Your task to perform on an android device: Open my contact list Image 0: 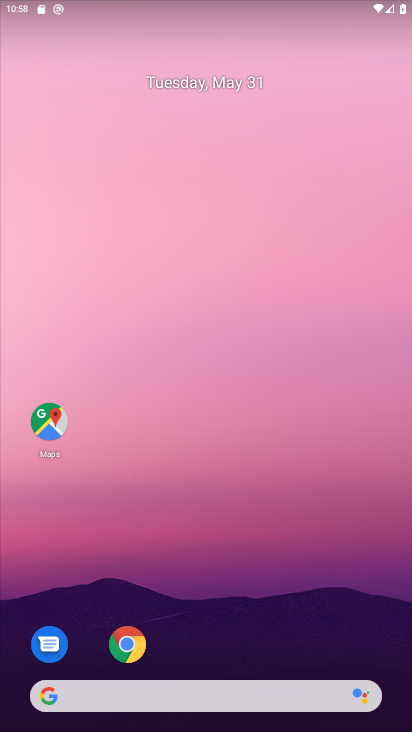
Step 0: drag from (243, 590) to (309, 283)
Your task to perform on an android device: Open my contact list Image 1: 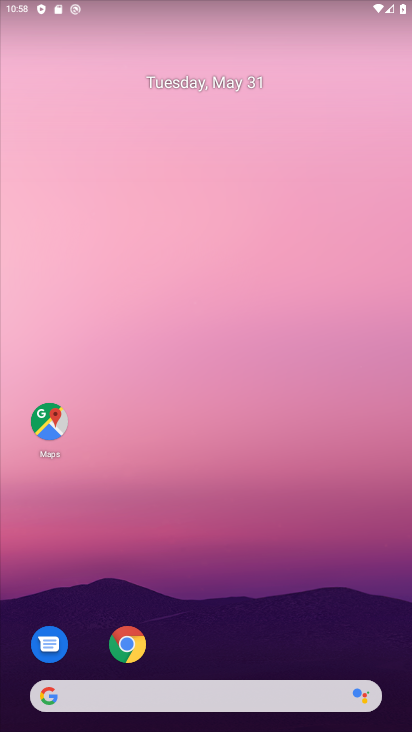
Step 1: drag from (245, 667) to (293, 247)
Your task to perform on an android device: Open my contact list Image 2: 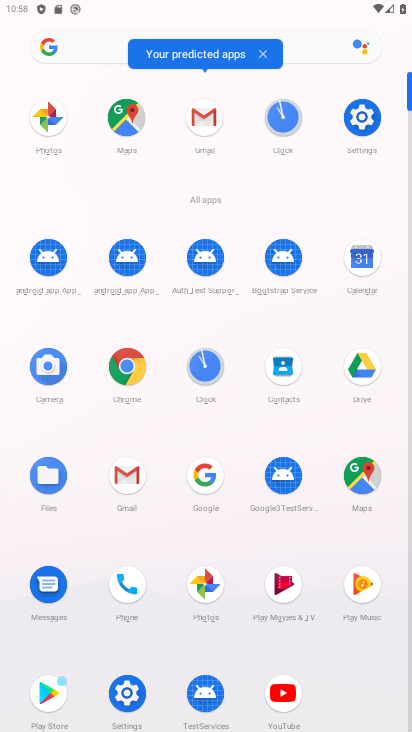
Step 2: drag from (203, 456) to (282, 123)
Your task to perform on an android device: Open my contact list Image 3: 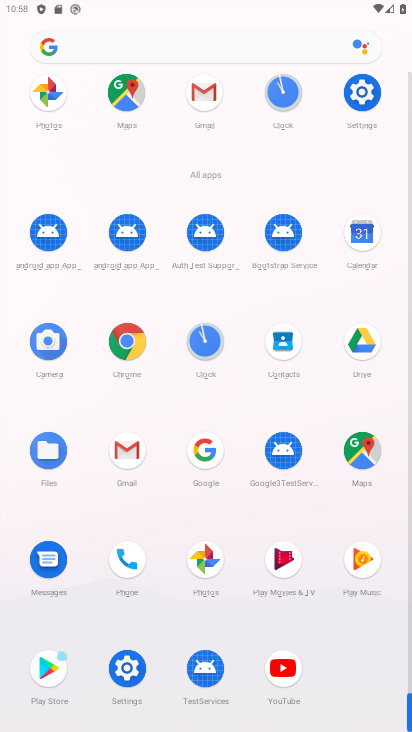
Step 3: click (273, 334)
Your task to perform on an android device: Open my contact list Image 4: 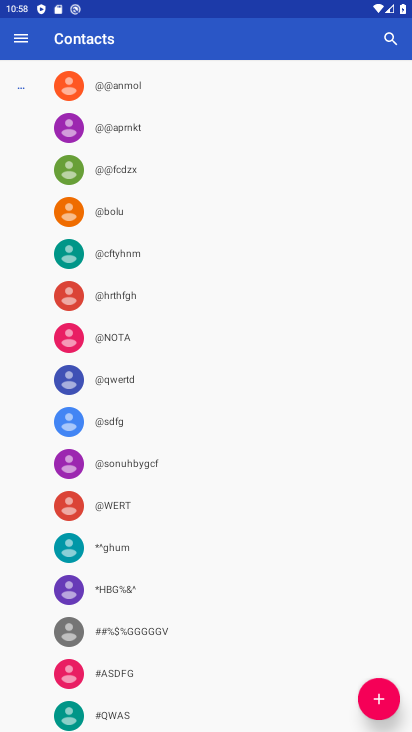
Step 4: click (303, 397)
Your task to perform on an android device: Open my contact list Image 5: 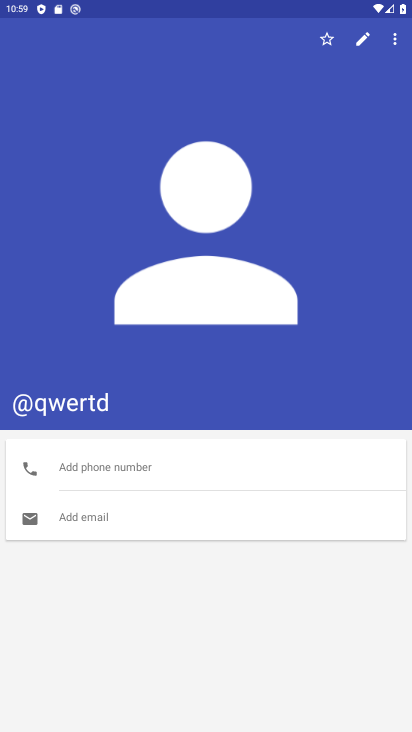
Step 5: task complete